Your task to perform on an android device: turn notification dots off Image 0: 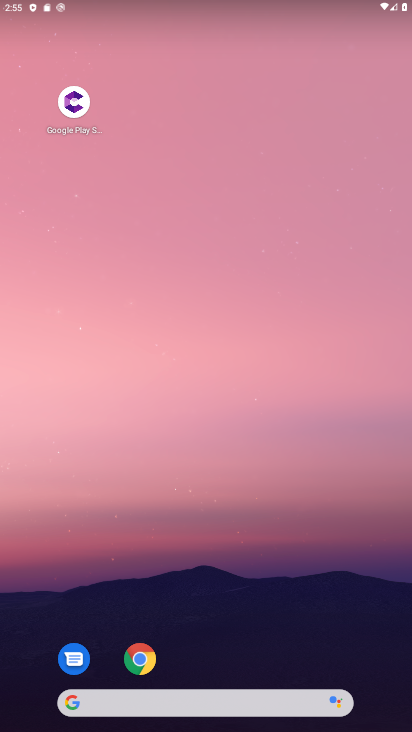
Step 0: drag from (213, 699) to (294, 237)
Your task to perform on an android device: turn notification dots off Image 1: 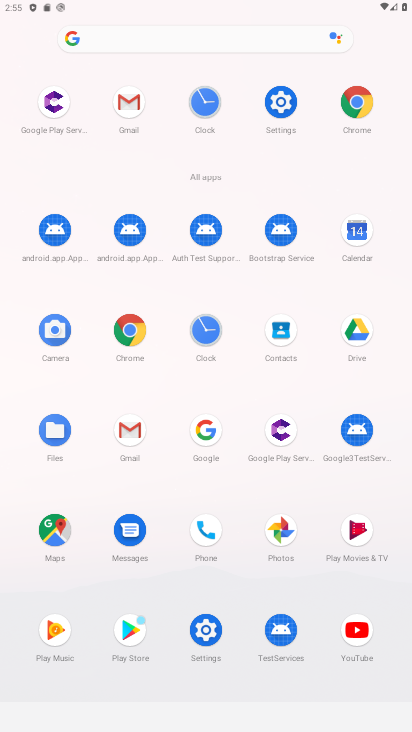
Step 1: click (280, 104)
Your task to perform on an android device: turn notification dots off Image 2: 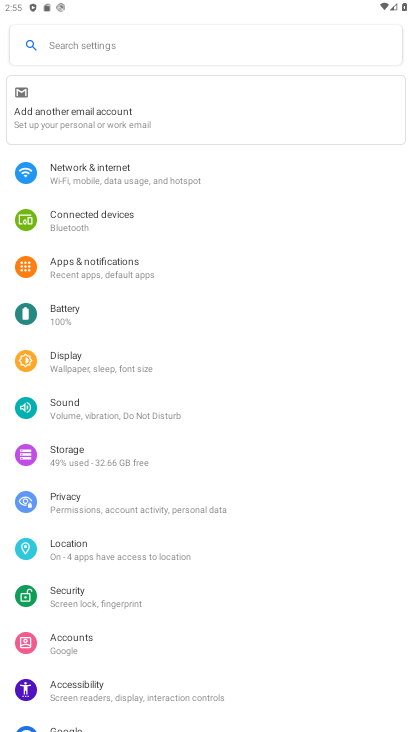
Step 2: click (90, 265)
Your task to perform on an android device: turn notification dots off Image 3: 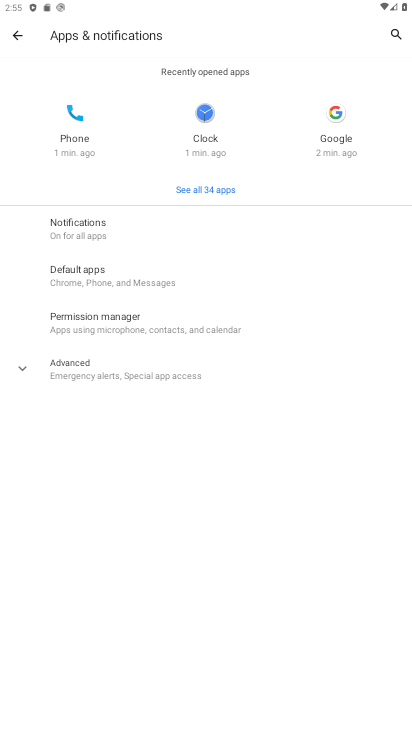
Step 3: click (92, 227)
Your task to perform on an android device: turn notification dots off Image 4: 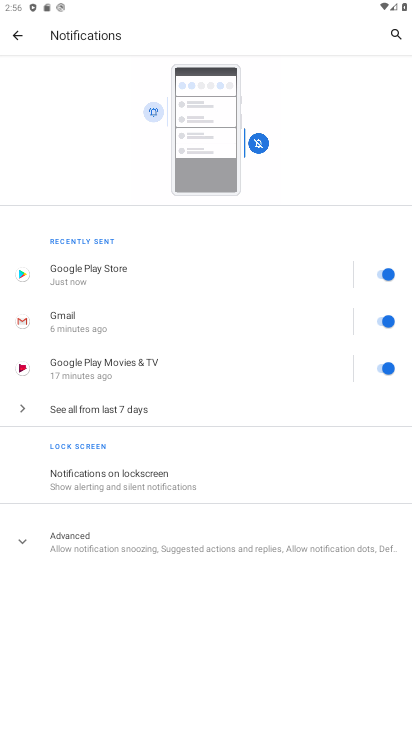
Step 4: click (74, 539)
Your task to perform on an android device: turn notification dots off Image 5: 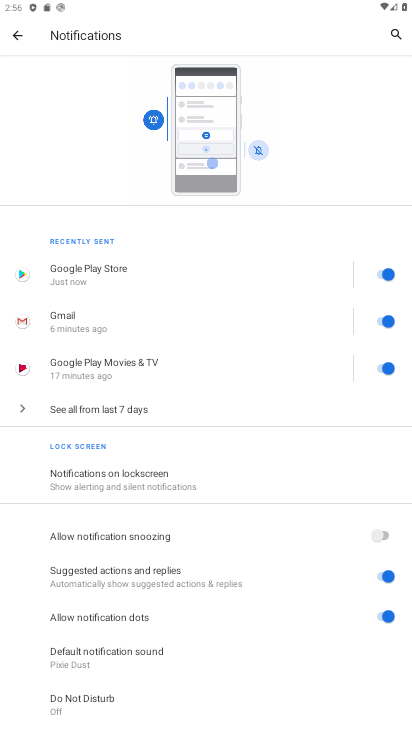
Step 5: click (380, 614)
Your task to perform on an android device: turn notification dots off Image 6: 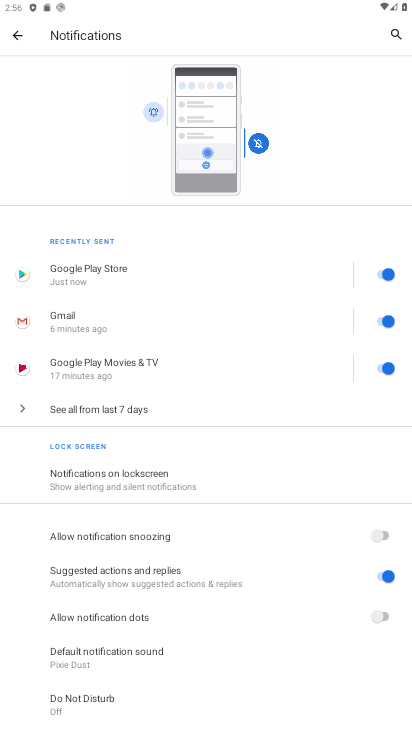
Step 6: task complete